Your task to perform on an android device: Show me recent news Image 0: 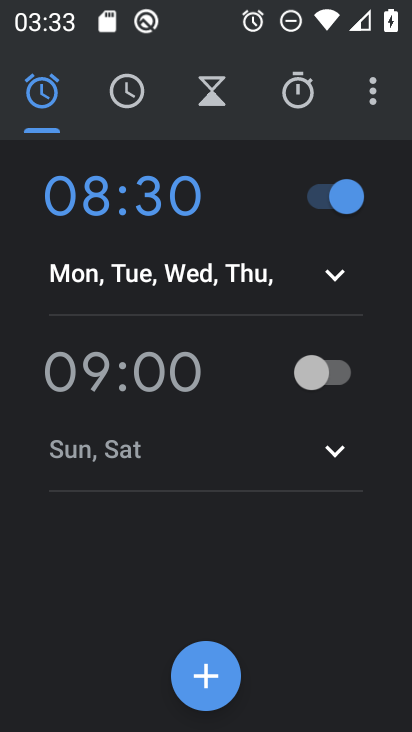
Step 0: press home button
Your task to perform on an android device: Show me recent news Image 1: 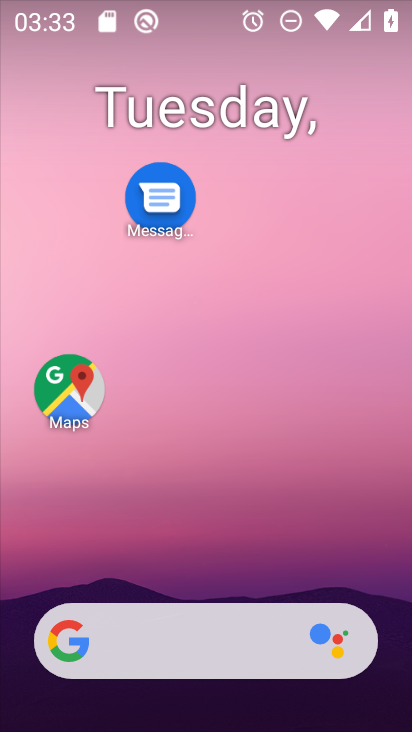
Step 1: drag from (198, 565) to (226, 203)
Your task to perform on an android device: Show me recent news Image 2: 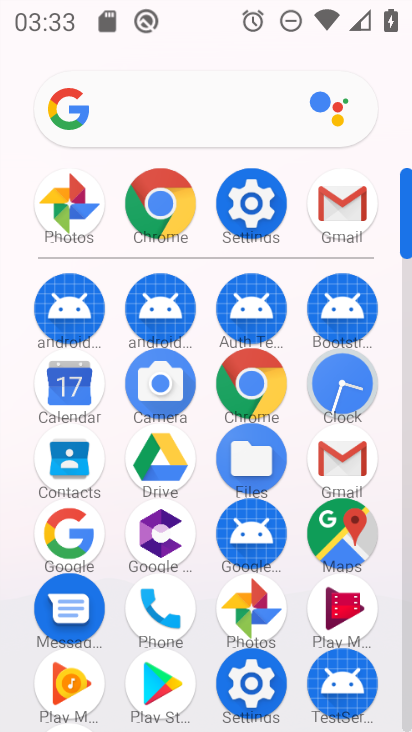
Step 2: click (48, 542)
Your task to perform on an android device: Show me recent news Image 3: 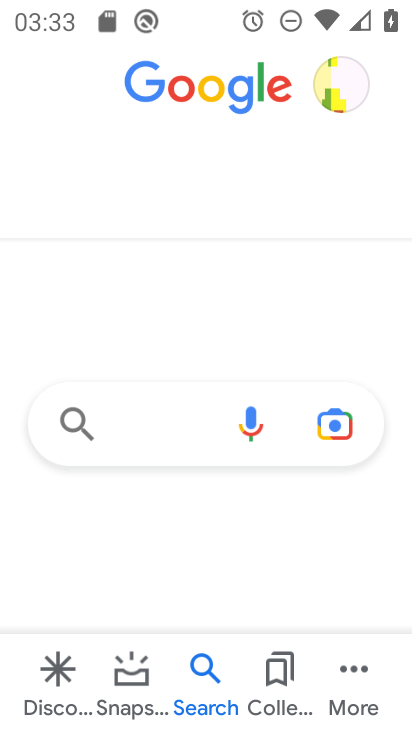
Step 3: click (135, 398)
Your task to perform on an android device: Show me recent news Image 4: 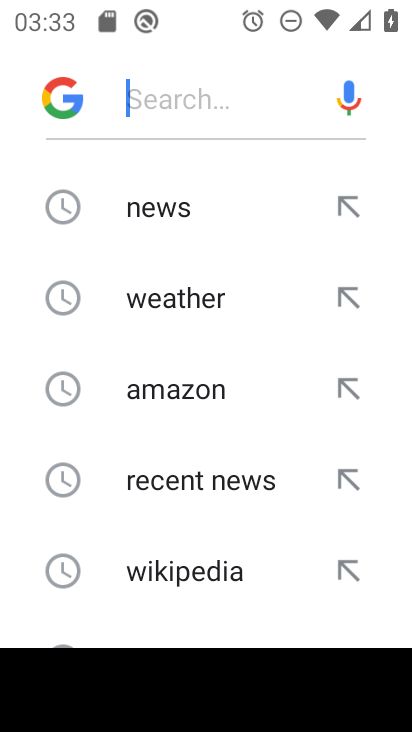
Step 4: click (200, 211)
Your task to perform on an android device: Show me recent news Image 5: 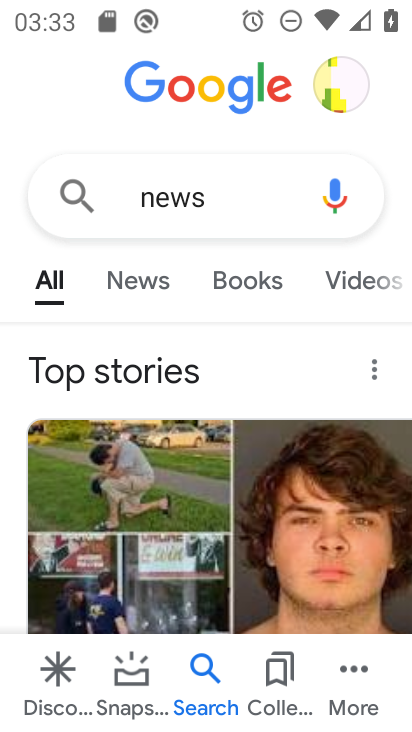
Step 5: click (130, 291)
Your task to perform on an android device: Show me recent news Image 6: 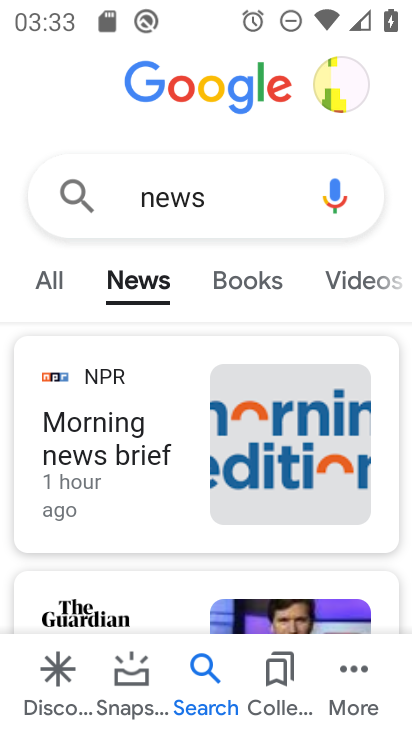
Step 6: task complete